Your task to perform on an android device: empty trash in google photos Image 0: 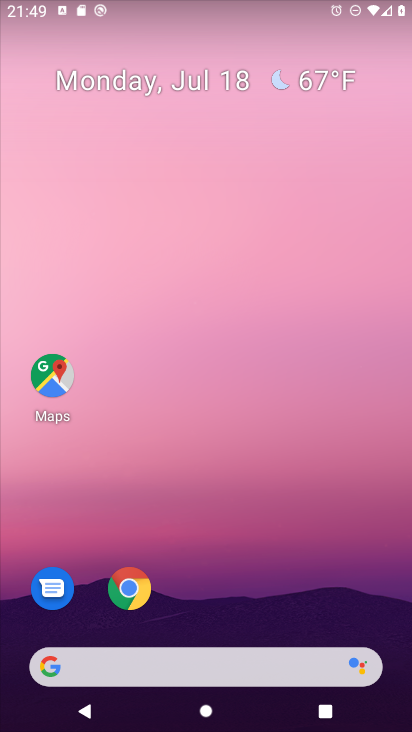
Step 0: drag from (342, 577) to (328, 119)
Your task to perform on an android device: empty trash in google photos Image 1: 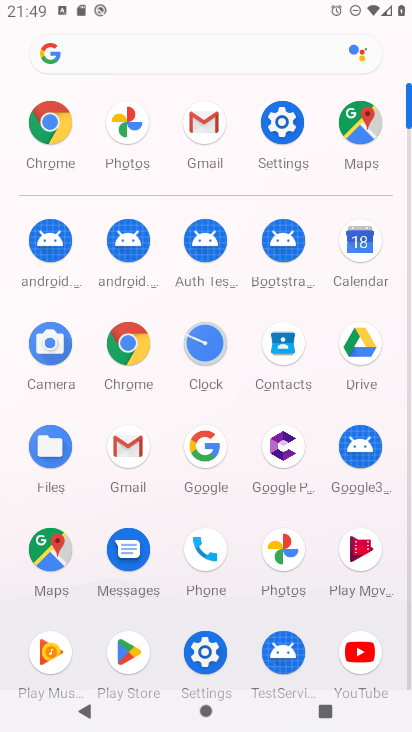
Step 1: click (283, 546)
Your task to perform on an android device: empty trash in google photos Image 2: 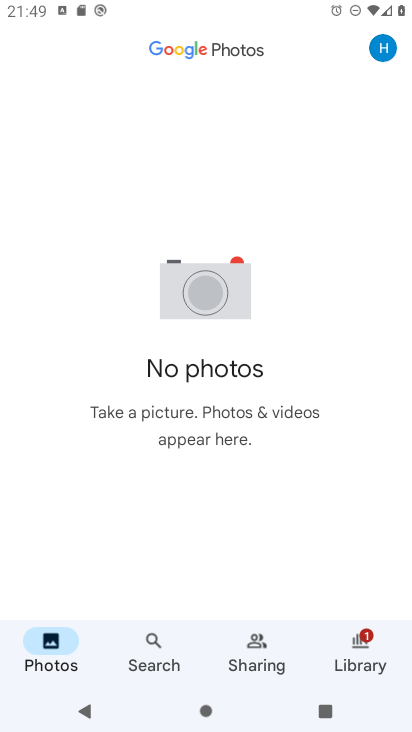
Step 2: click (355, 644)
Your task to perform on an android device: empty trash in google photos Image 3: 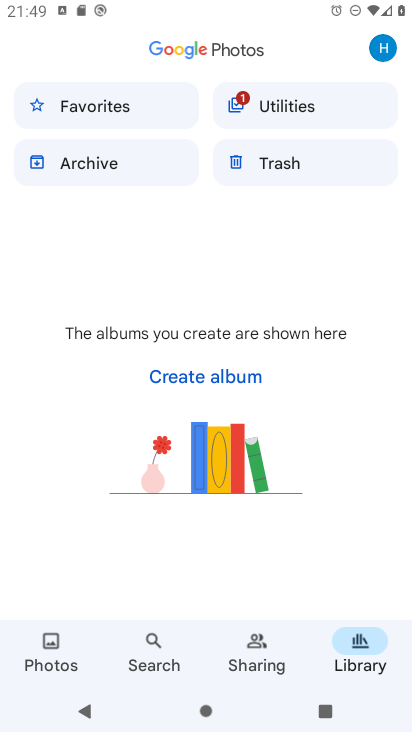
Step 3: click (276, 161)
Your task to perform on an android device: empty trash in google photos Image 4: 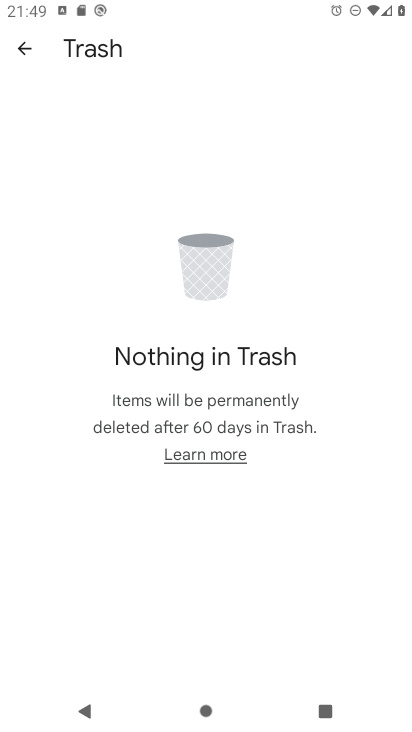
Step 4: task complete